Your task to perform on an android device: toggle wifi Image 0: 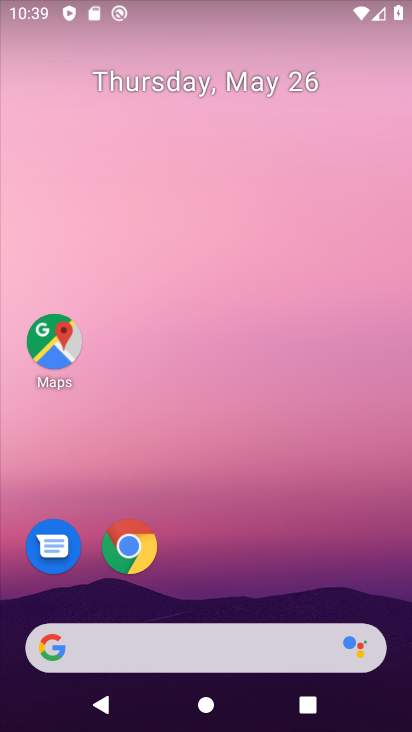
Step 0: drag from (222, 555) to (257, 95)
Your task to perform on an android device: toggle wifi Image 1: 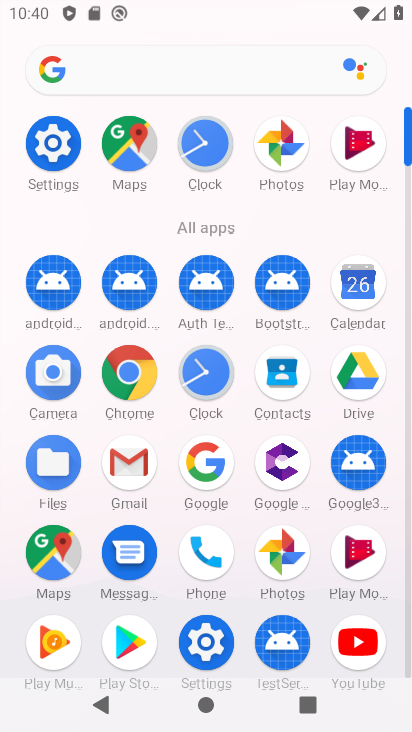
Step 1: click (53, 151)
Your task to perform on an android device: toggle wifi Image 2: 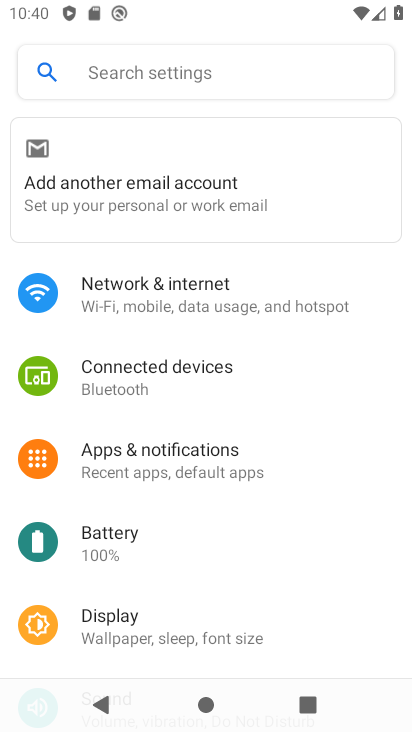
Step 2: click (181, 291)
Your task to perform on an android device: toggle wifi Image 3: 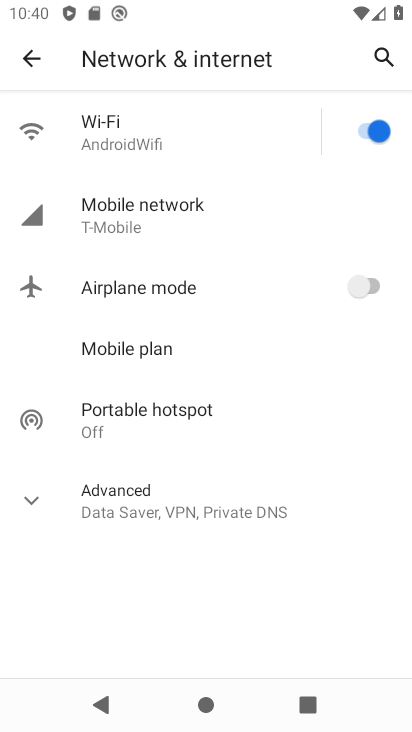
Step 3: click (381, 135)
Your task to perform on an android device: toggle wifi Image 4: 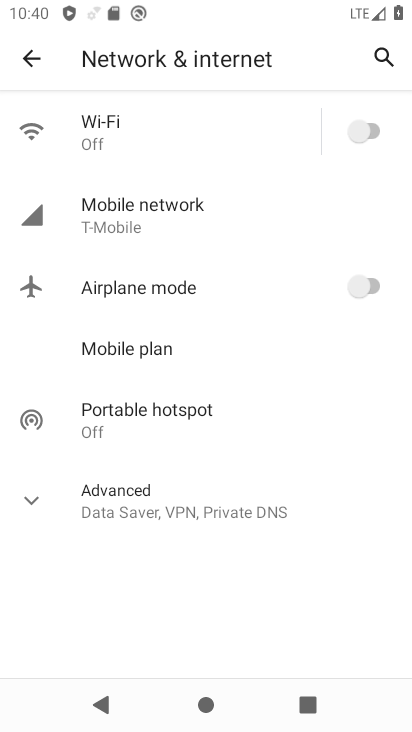
Step 4: task complete